Your task to perform on an android device: What's the weather going to be tomorrow? Image 0: 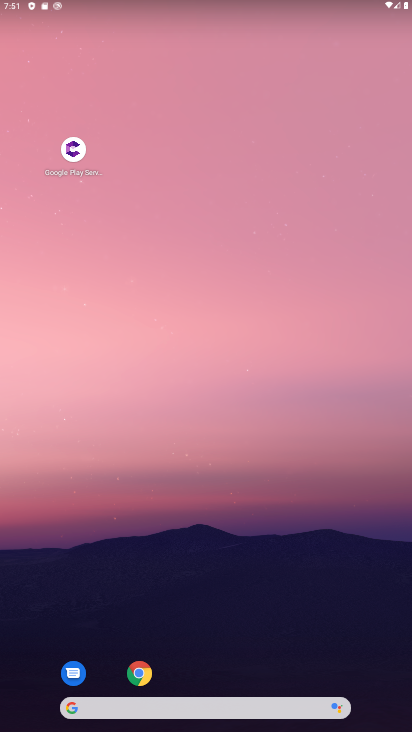
Step 0: press home button
Your task to perform on an android device: What's the weather going to be tomorrow? Image 1: 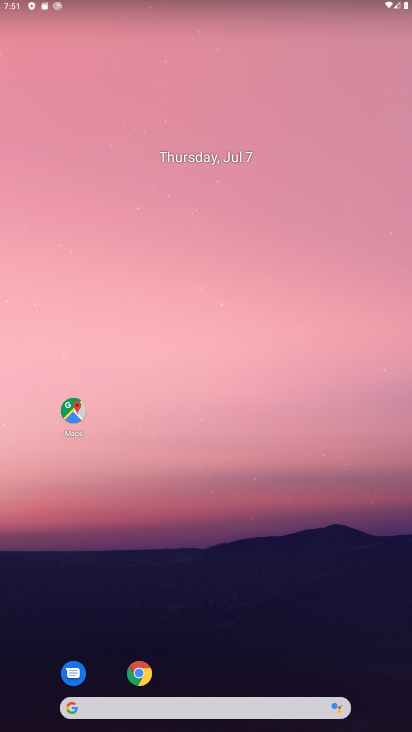
Step 1: drag from (404, 731) to (376, 594)
Your task to perform on an android device: What's the weather going to be tomorrow? Image 2: 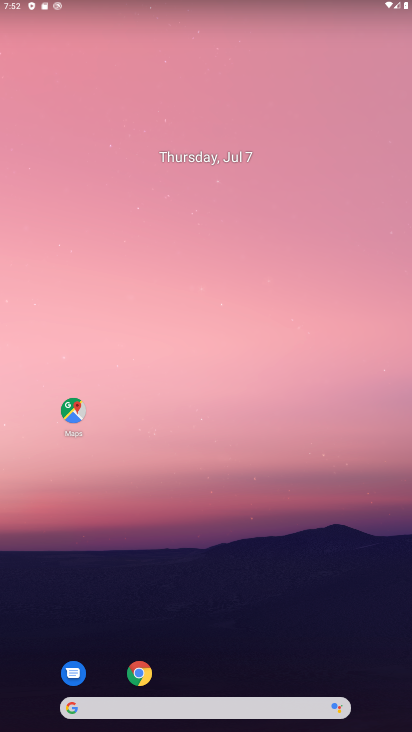
Step 2: click (196, 705)
Your task to perform on an android device: What's the weather going to be tomorrow? Image 3: 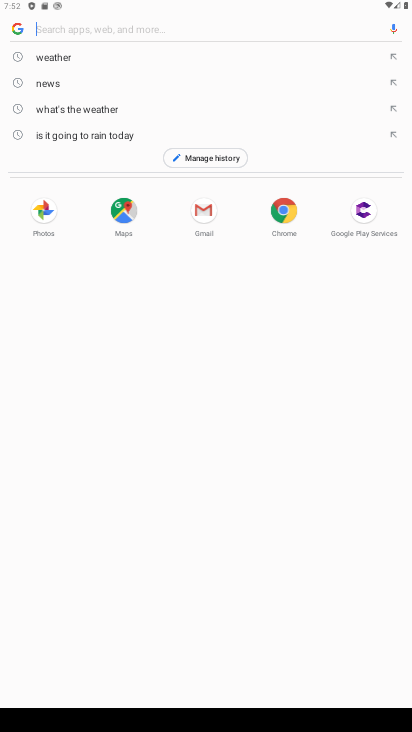
Step 3: type "weather going to be tomorrow"
Your task to perform on an android device: What's the weather going to be tomorrow? Image 4: 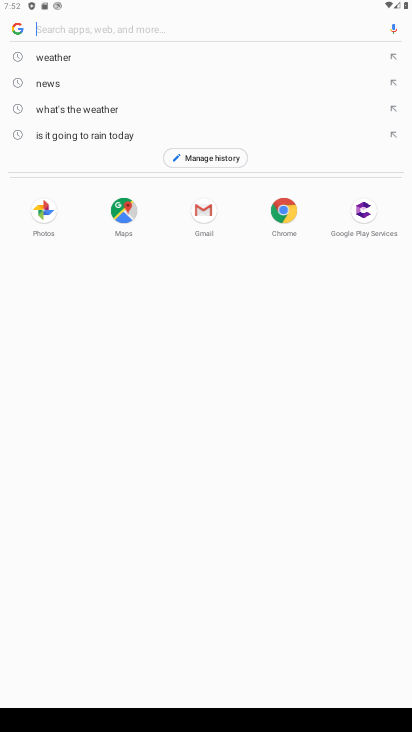
Step 4: click (67, 27)
Your task to perform on an android device: What's the weather going to be tomorrow? Image 5: 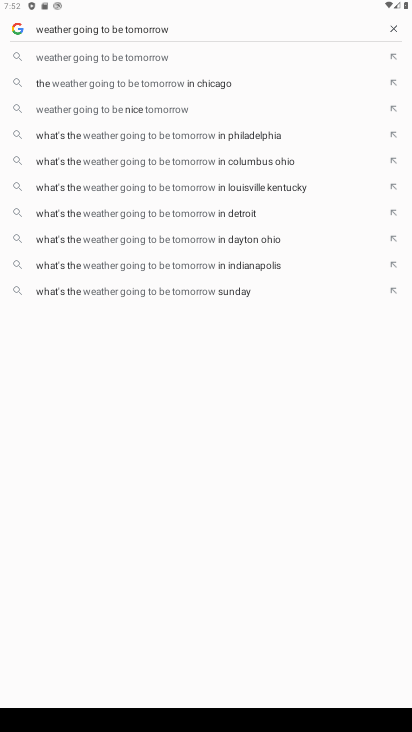
Step 5: press enter
Your task to perform on an android device: What's the weather going to be tomorrow? Image 6: 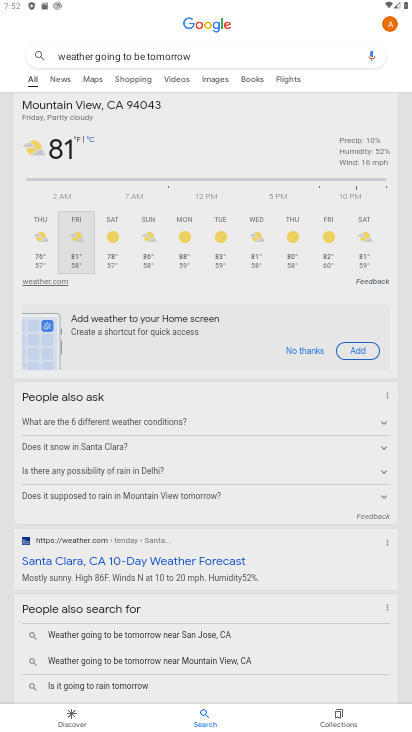
Step 6: task complete